Your task to perform on an android device: turn notification dots off Image 0: 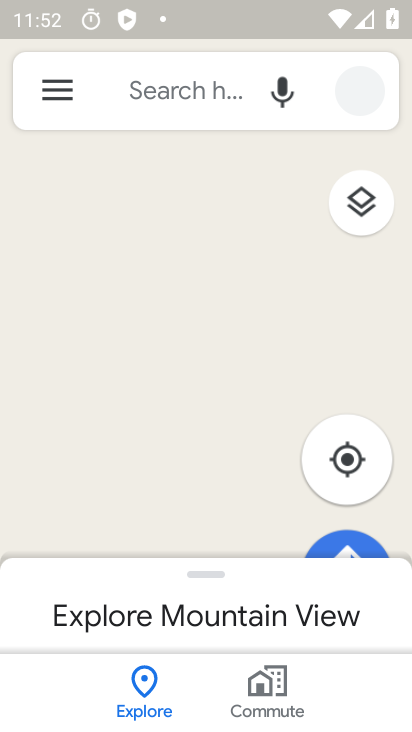
Step 0: drag from (346, 506) to (306, 209)
Your task to perform on an android device: turn notification dots off Image 1: 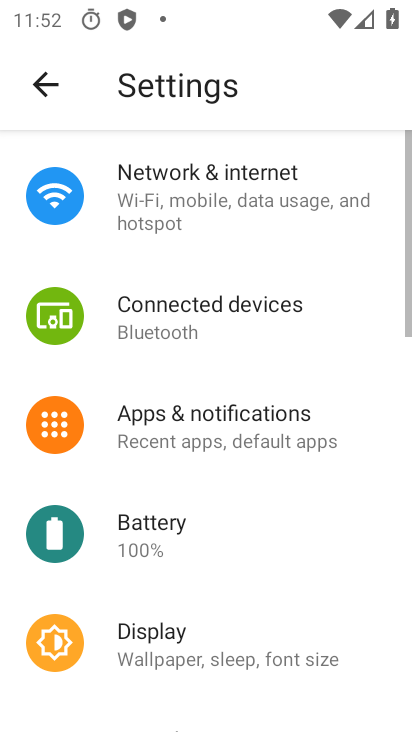
Step 1: press home button
Your task to perform on an android device: turn notification dots off Image 2: 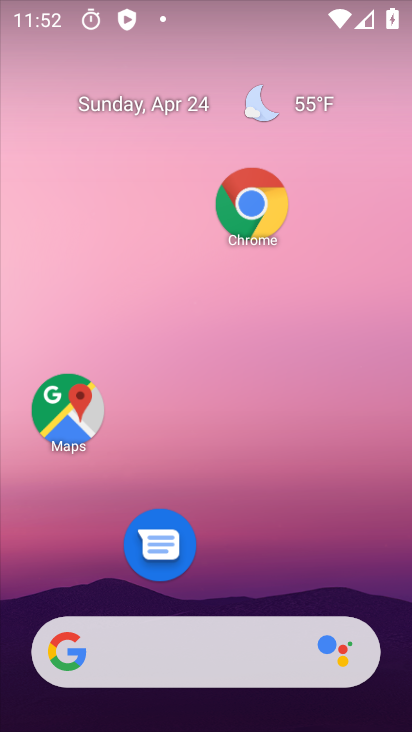
Step 2: drag from (314, 638) to (333, 218)
Your task to perform on an android device: turn notification dots off Image 3: 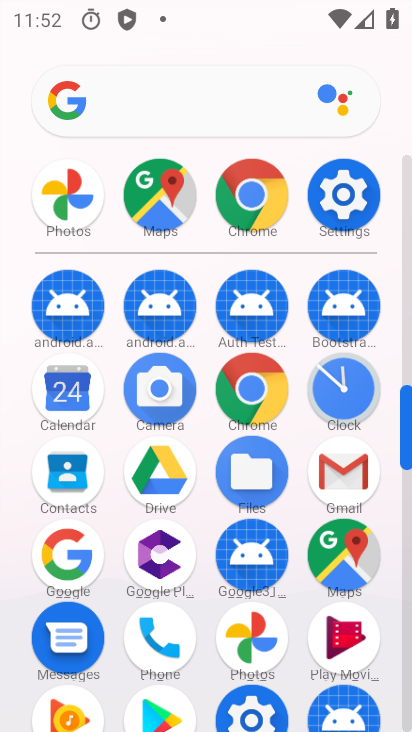
Step 3: click (345, 205)
Your task to perform on an android device: turn notification dots off Image 4: 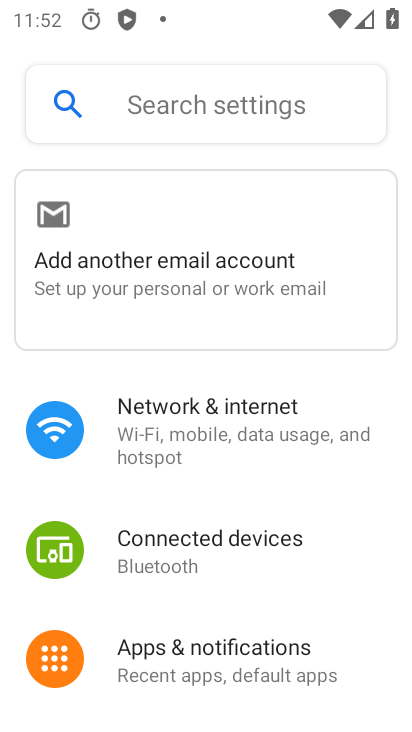
Step 4: click (163, 105)
Your task to perform on an android device: turn notification dots off Image 5: 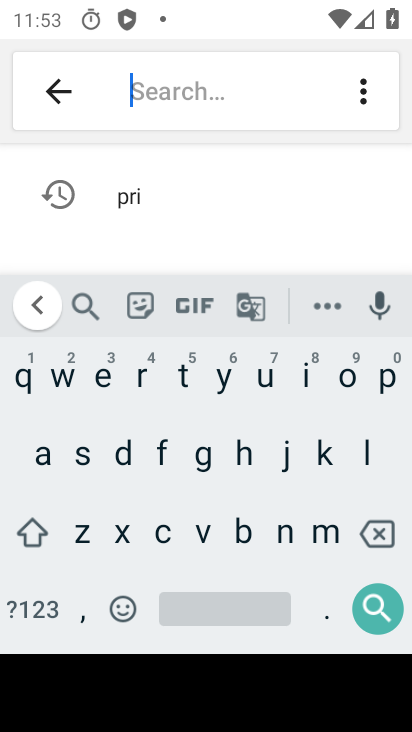
Step 5: click (118, 458)
Your task to perform on an android device: turn notification dots off Image 6: 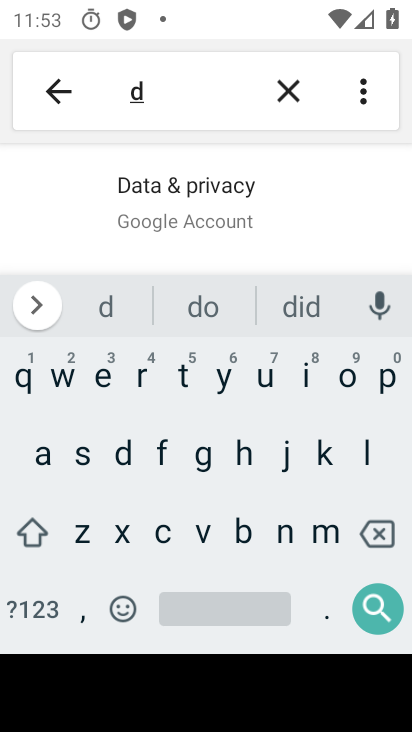
Step 6: click (357, 382)
Your task to perform on an android device: turn notification dots off Image 7: 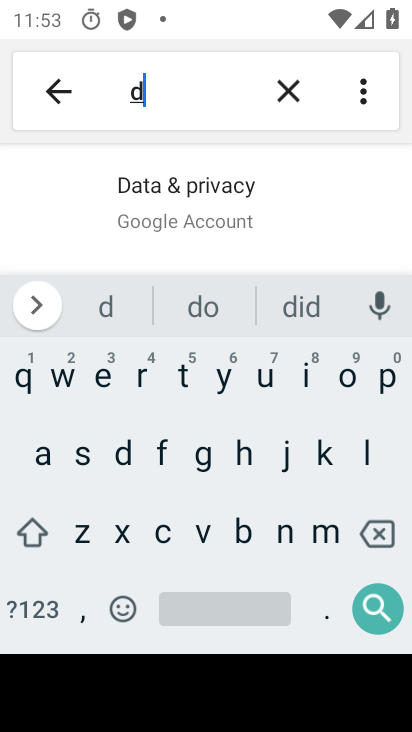
Step 7: click (357, 382)
Your task to perform on an android device: turn notification dots off Image 8: 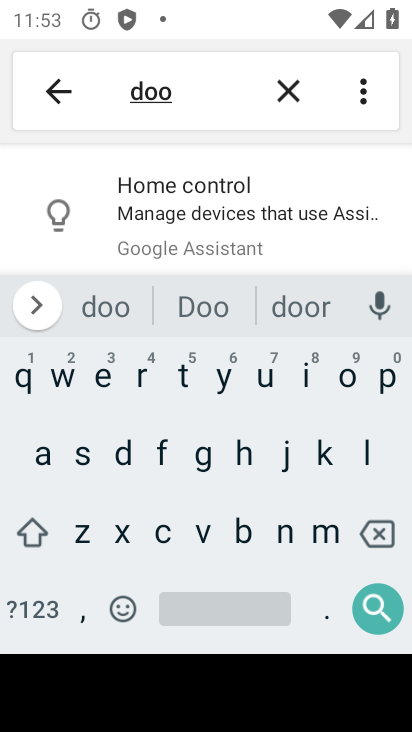
Step 8: click (374, 532)
Your task to perform on an android device: turn notification dots off Image 9: 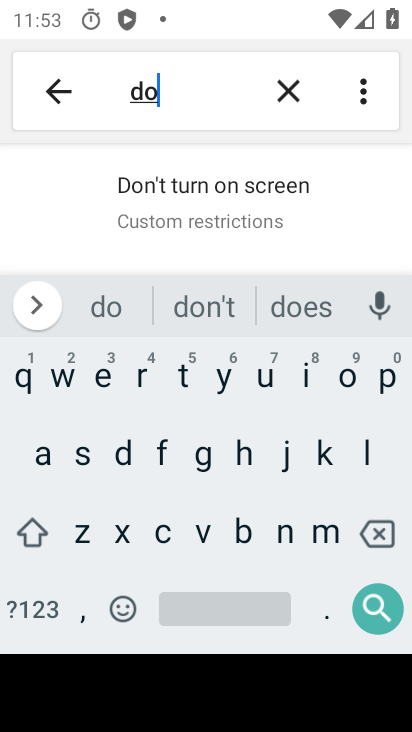
Step 9: click (178, 383)
Your task to perform on an android device: turn notification dots off Image 10: 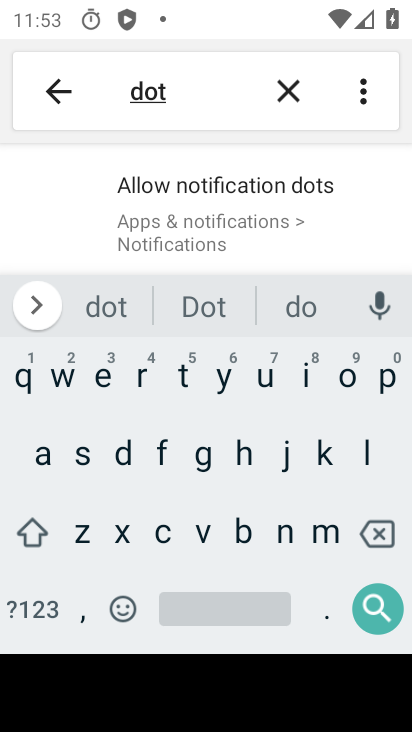
Step 10: click (149, 198)
Your task to perform on an android device: turn notification dots off Image 11: 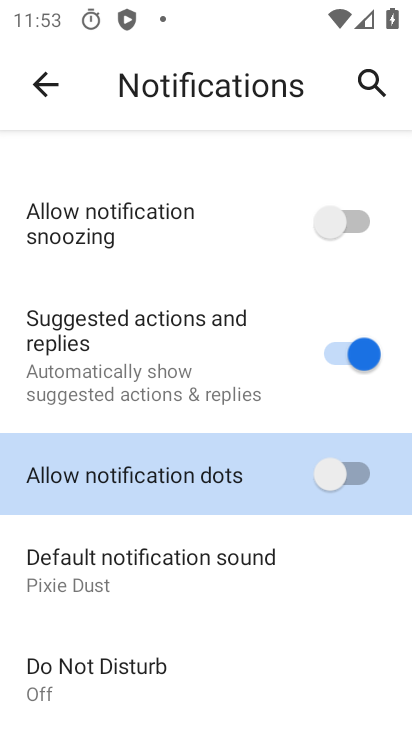
Step 11: click (202, 469)
Your task to perform on an android device: turn notification dots off Image 12: 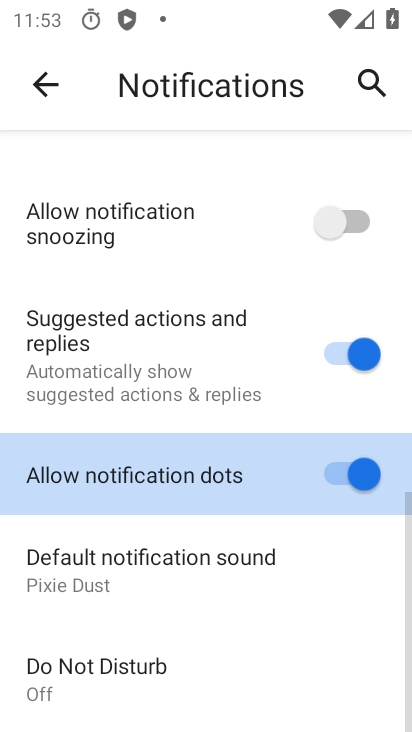
Step 12: click (202, 469)
Your task to perform on an android device: turn notification dots off Image 13: 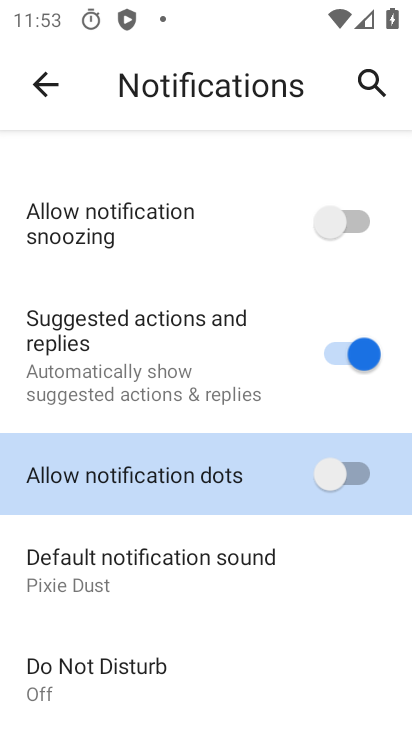
Step 13: task complete